Your task to perform on an android device: open the mobile data screen to see how much data has been used Image 0: 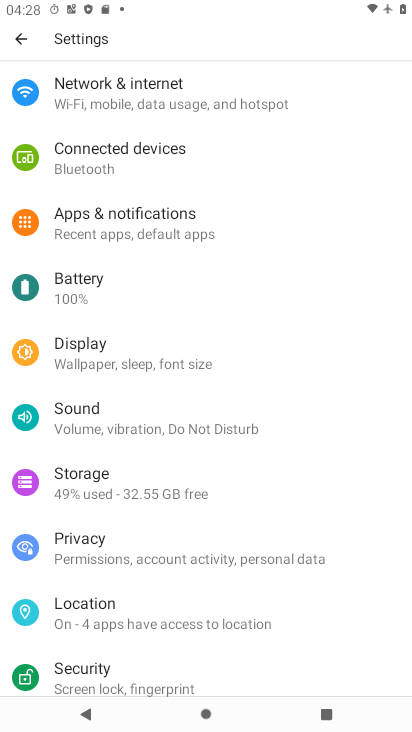
Step 0: click (153, 105)
Your task to perform on an android device: open the mobile data screen to see how much data has been used Image 1: 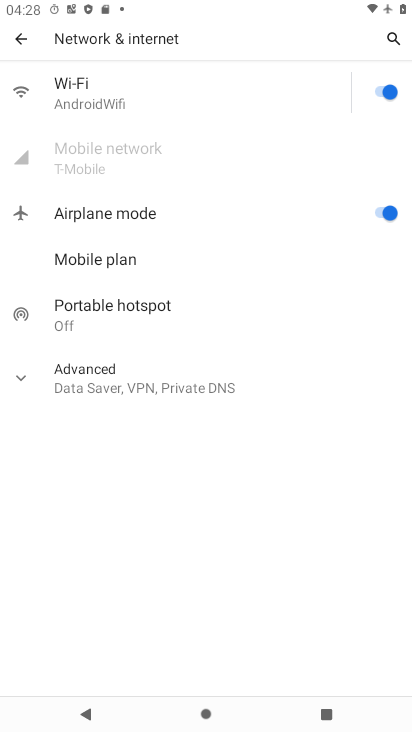
Step 1: task complete